Your task to perform on an android device: When is my next appointment? Image 0: 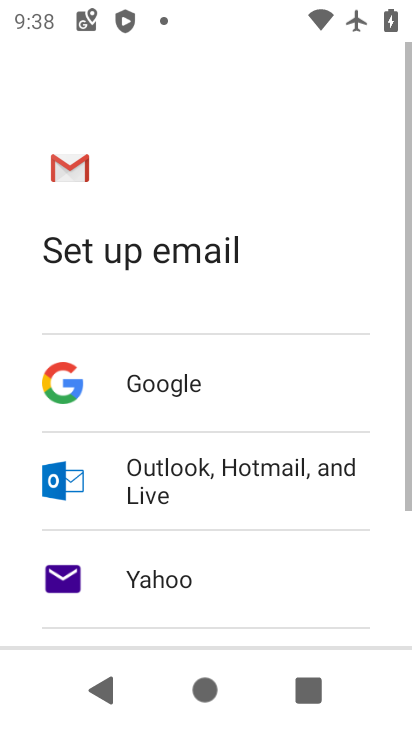
Step 0: press home button
Your task to perform on an android device: When is my next appointment? Image 1: 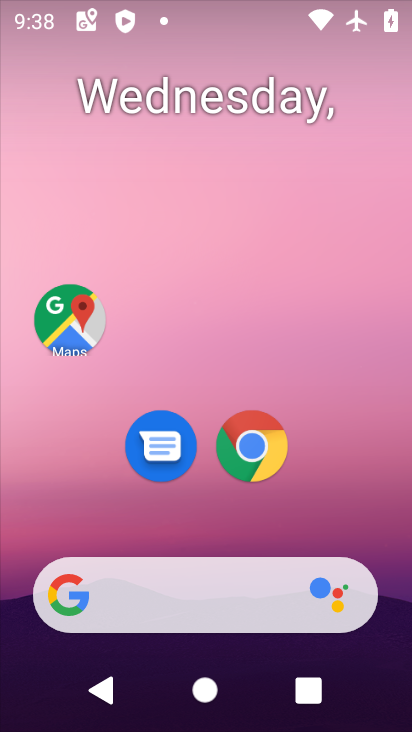
Step 1: drag from (133, 600) to (365, 48)
Your task to perform on an android device: When is my next appointment? Image 2: 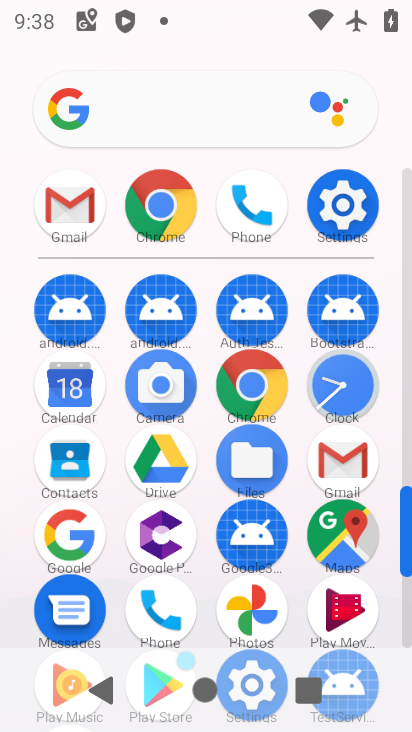
Step 2: click (80, 401)
Your task to perform on an android device: When is my next appointment? Image 3: 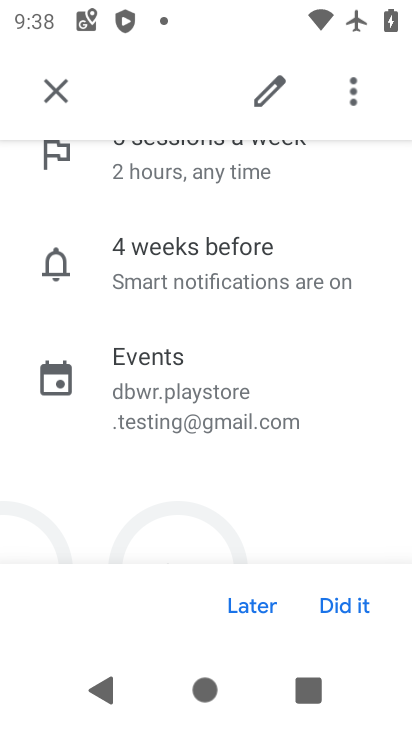
Step 3: click (63, 89)
Your task to perform on an android device: When is my next appointment? Image 4: 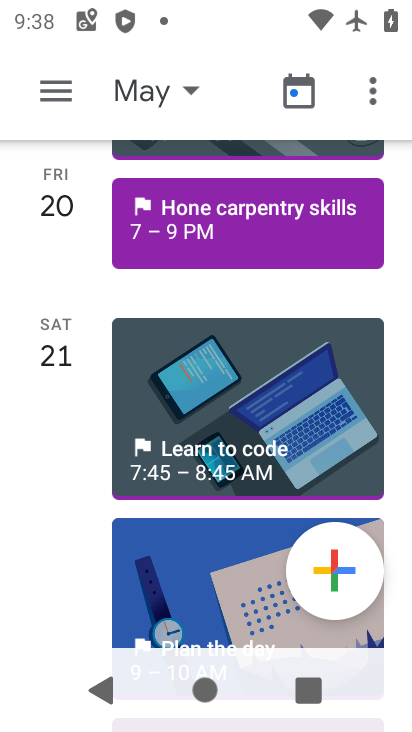
Step 4: drag from (229, 165) to (125, 647)
Your task to perform on an android device: When is my next appointment? Image 5: 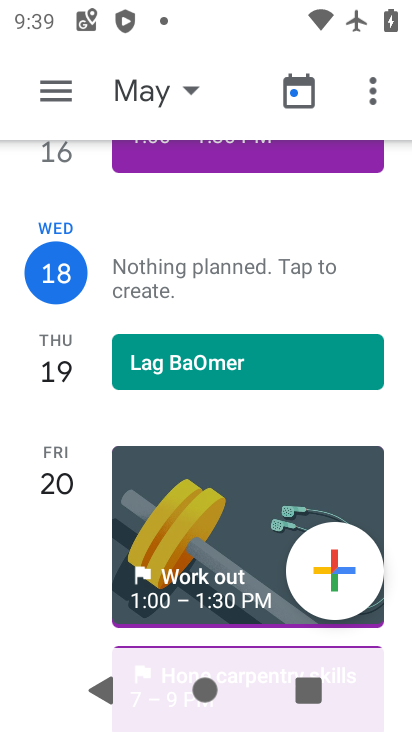
Step 5: drag from (193, 428) to (322, 229)
Your task to perform on an android device: When is my next appointment? Image 6: 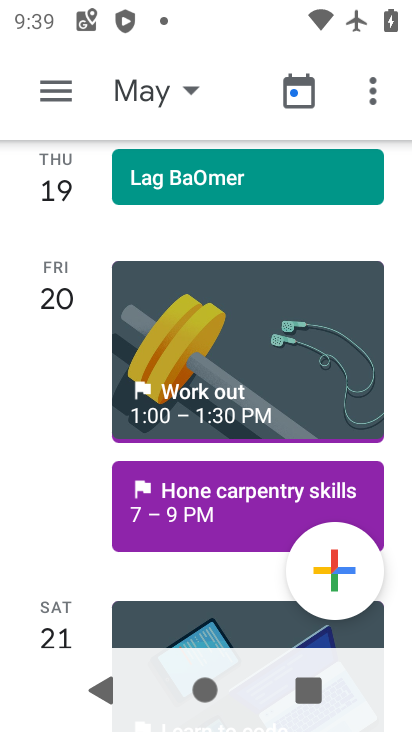
Step 6: click (206, 489)
Your task to perform on an android device: When is my next appointment? Image 7: 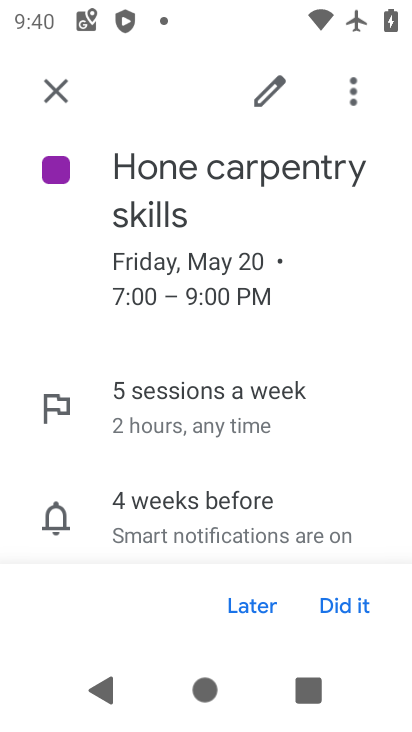
Step 7: task complete